Your task to perform on an android device: Search for flights from San Diego to Seattle Image 0: 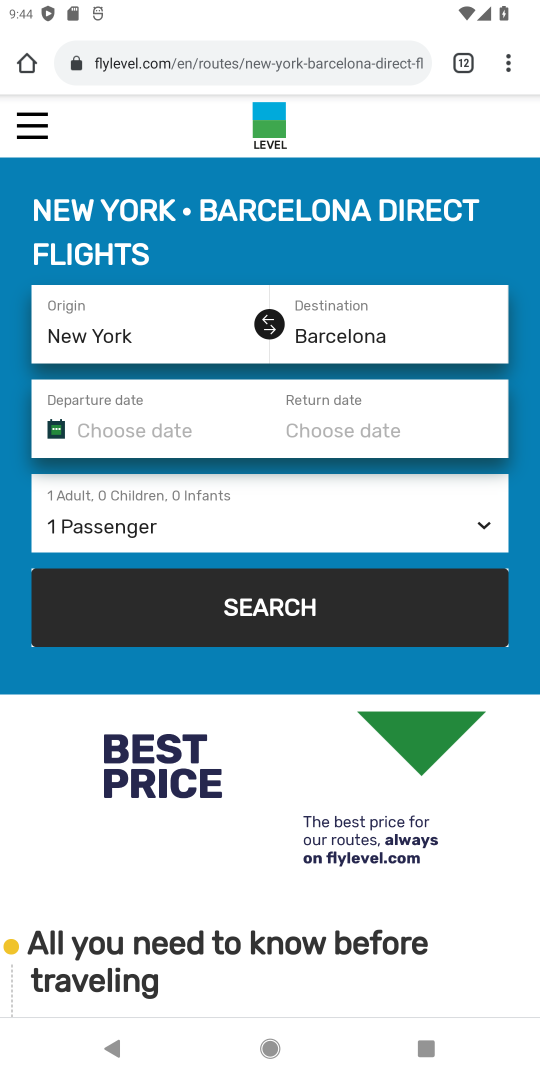
Step 0: task complete